Your task to perform on an android device: Clear the shopping cart on target. Add "razer huntsman" to the cart on target Image 0: 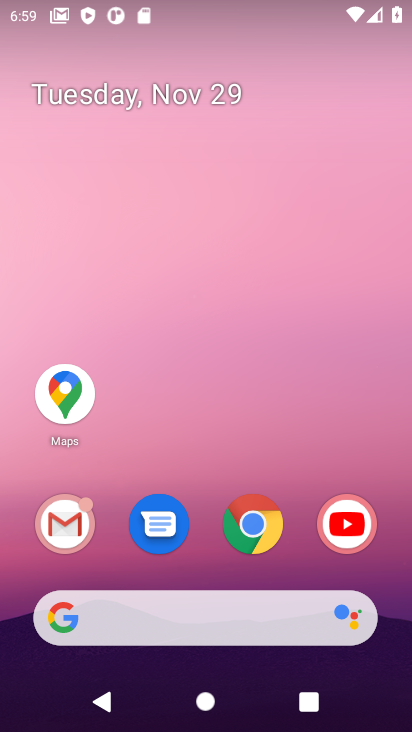
Step 0: click (254, 530)
Your task to perform on an android device: Clear the shopping cart on target. Add "razer huntsman" to the cart on target Image 1: 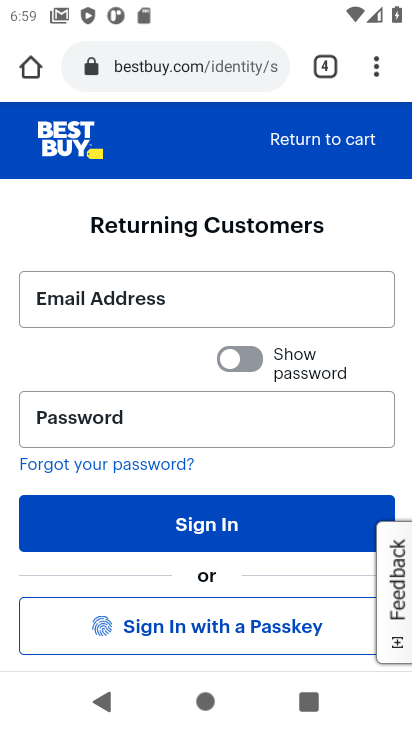
Step 1: click (186, 79)
Your task to perform on an android device: Clear the shopping cart on target. Add "razer huntsman" to the cart on target Image 2: 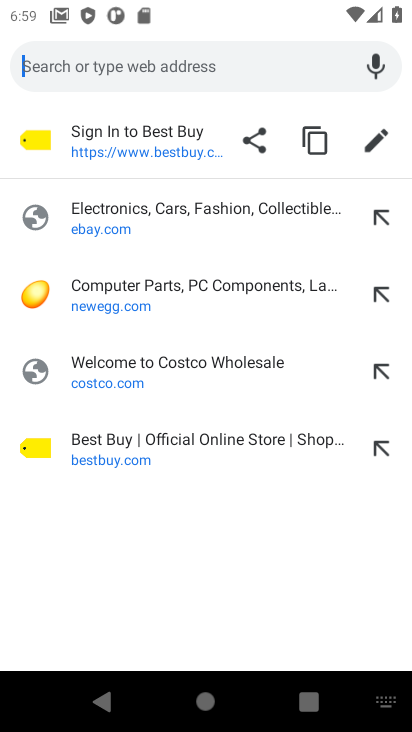
Step 2: type "target.com"
Your task to perform on an android device: Clear the shopping cart on target. Add "razer huntsman" to the cart on target Image 3: 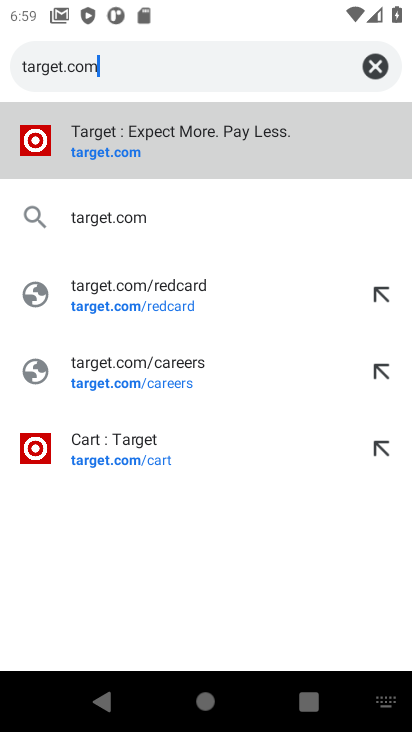
Step 3: click (88, 155)
Your task to perform on an android device: Clear the shopping cart on target. Add "razer huntsman" to the cart on target Image 4: 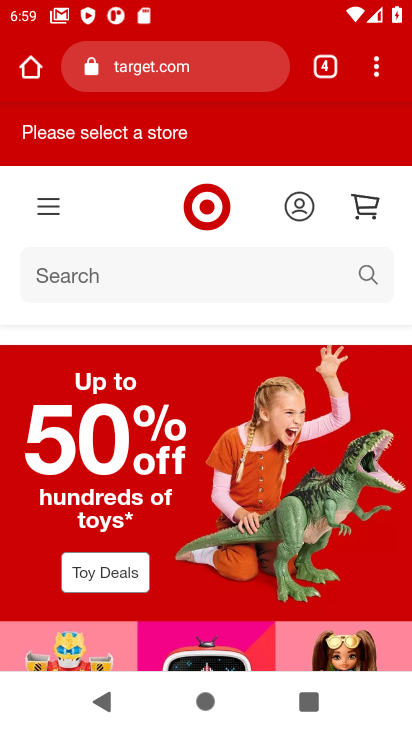
Step 4: click (368, 205)
Your task to perform on an android device: Clear the shopping cart on target. Add "razer huntsman" to the cart on target Image 5: 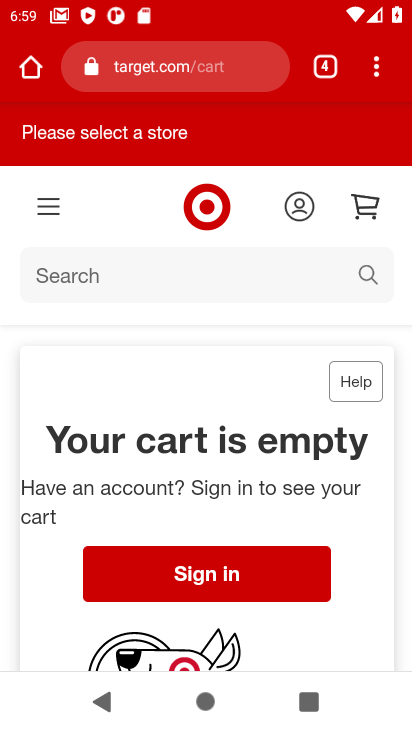
Step 5: click (65, 274)
Your task to perform on an android device: Clear the shopping cart on target. Add "razer huntsman" to the cart on target Image 6: 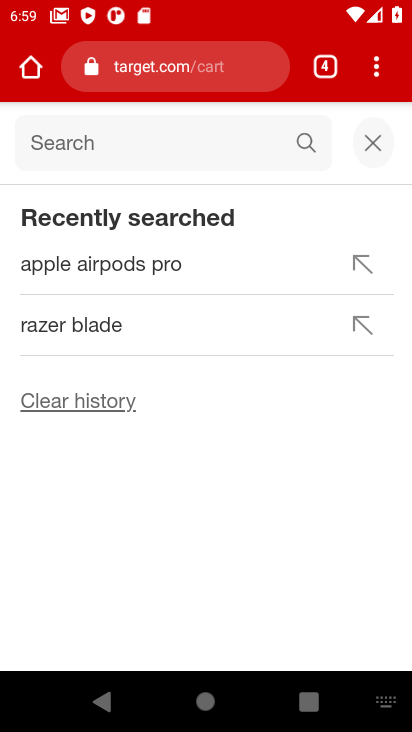
Step 6: type "razer huntsman"
Your task to perform on an android device: Clear the shopping cart on target. Add "razer huntsman" to the cart on target Image 7: 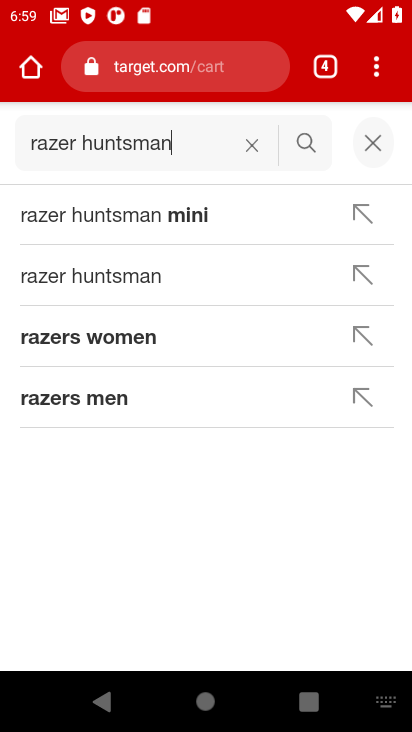
Step 7: click (132, 273)
Your task to perform on an android device: Clear the shopping cart on target. Add "razer huntsman" to the cart on target Image 8: 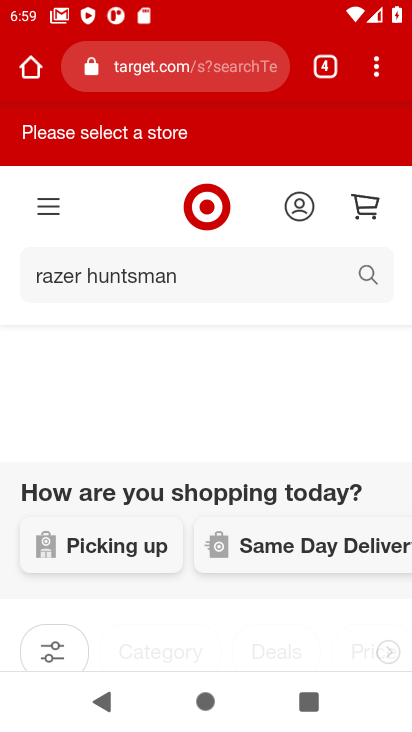
Step 8: drag from (132, 408) to (136, 207)
Your task to perform on an android device: Clear the shopping cart on target. Add "razer huntsman" to the cart on target Image 9: 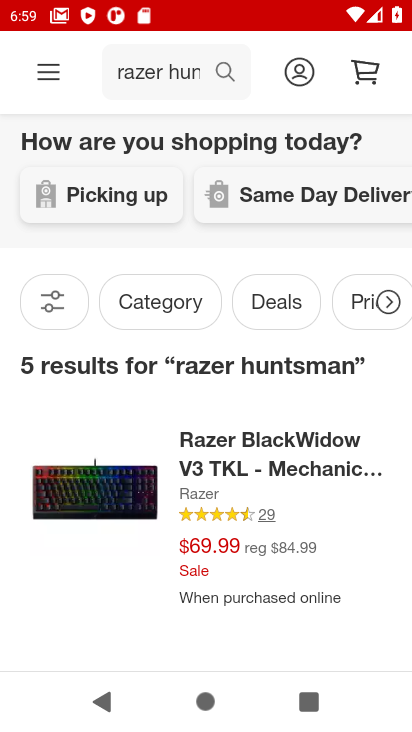
Step 9: drag from (161, 534) to (155, 280)
Your task to perform on an android device: Clear the shopping cart on target. Add "razer huntsman" to the cart on target Image 10: 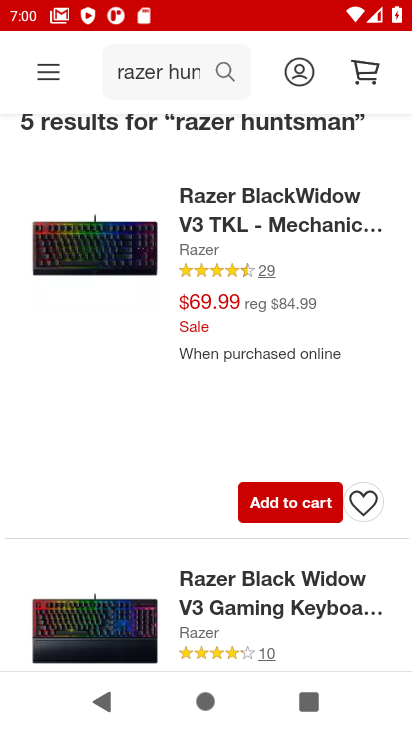
Step 10: drag from (124, 575) to (123, 298)
Your task to perform on an android device: Clear the shopping cart on target. Add "razer huntsman" to the cart on target Image 11: 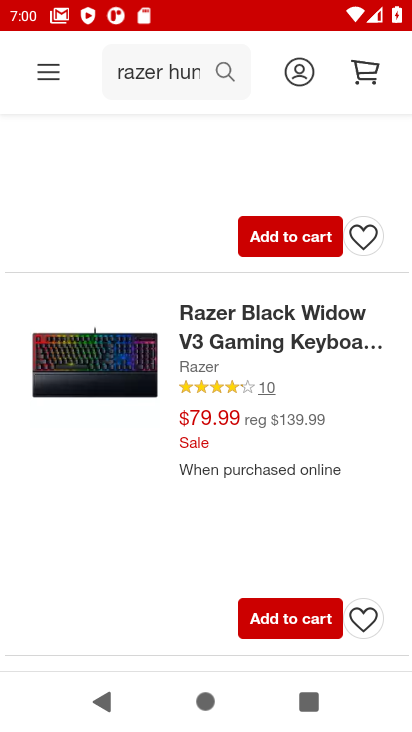
Step 11: drag from (139, 486) to (116, 249)
Your task to perform on an android device: Clear the shopping cart on target. Add "razer huntsman" to the cart on target Image 12: 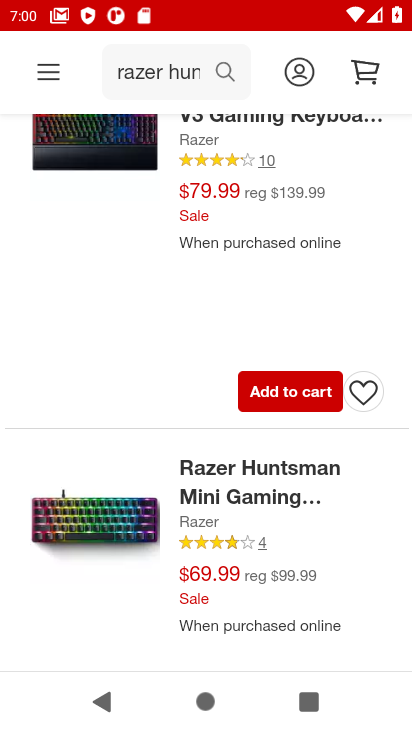
Step 12: click (225, 489)
Your task to perform on an android device: Clear the shopping cart on target. Add "razer huntsman" to the cart on target Image 13: 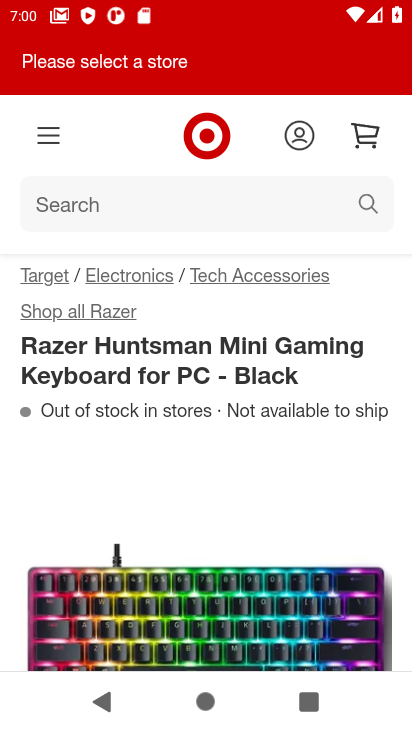
Step 13: drag from (218, 498) to (179, 166)
Your task to perform on an android device: Clear the shopping cart on target. Add "razer huntsman" to the cart on target Image 14: 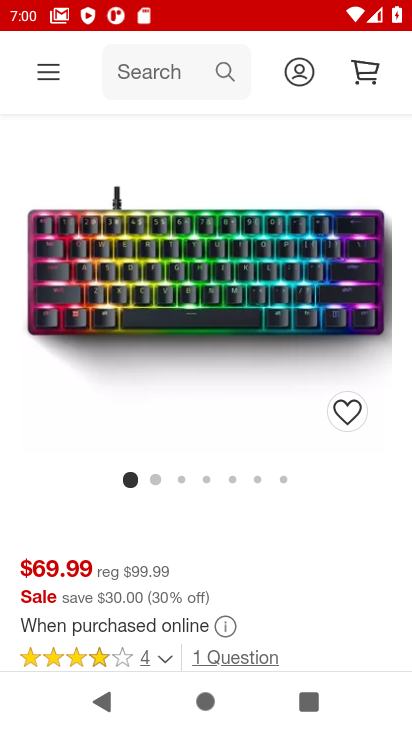
Step 14: drag from (217, 528) to (175, 191)
Your task to perform on an android device: Clear the shopping cart on target. Add "razer huntsman" to the cart on target Image 15: 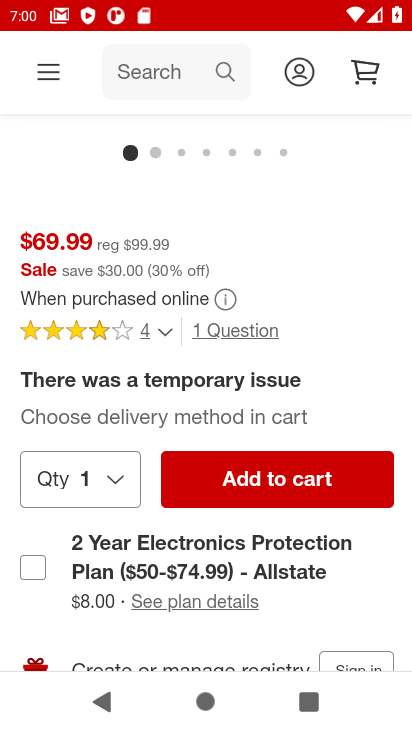
Step 15: click (300, 493)
Your task to perform on an android device: Clear the shopping cart on target. Add "razer huntsman" to the cart on target Image 16: 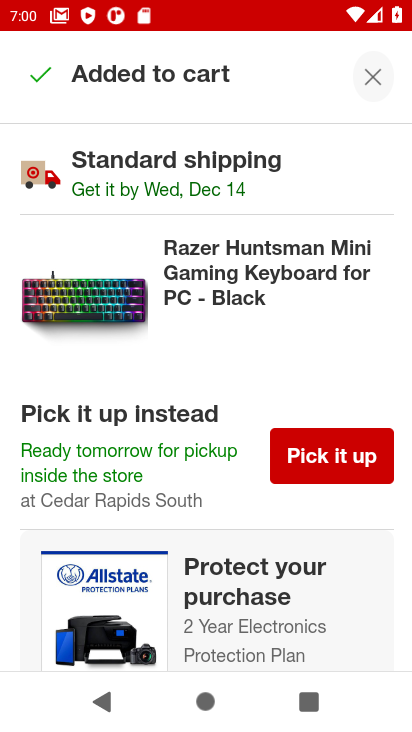
Step 16: task complete